Your task to perform on an android device: Open Google Maps Image 0: 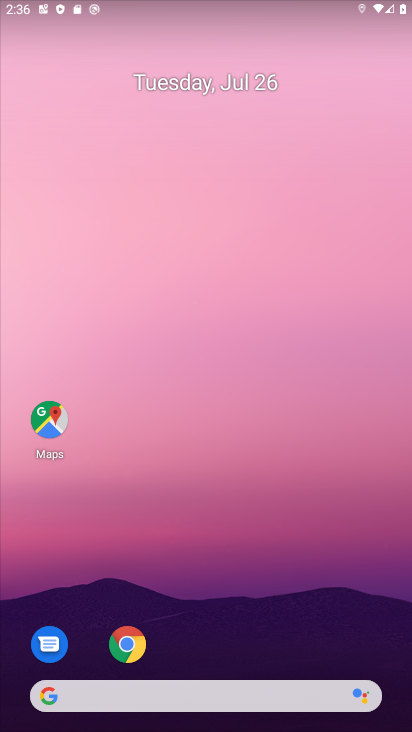
Step 0: press home button
Your task to perform on an android device: Open Google Maps Image 1: 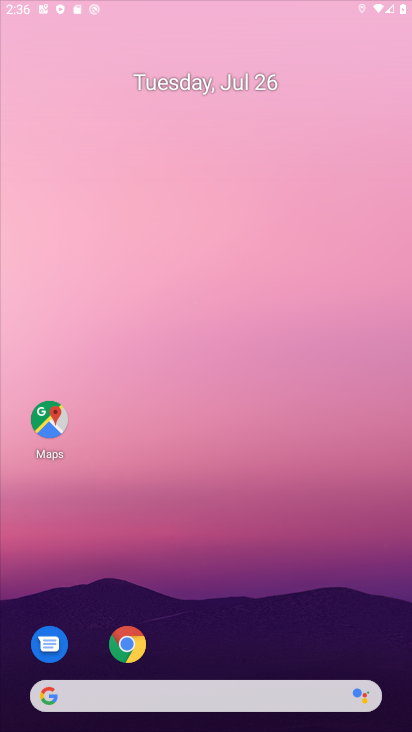
Step 1: drag from (259, 645) to (297, 83)
Your task to perform on an android device: Open Google Maps Image 2: 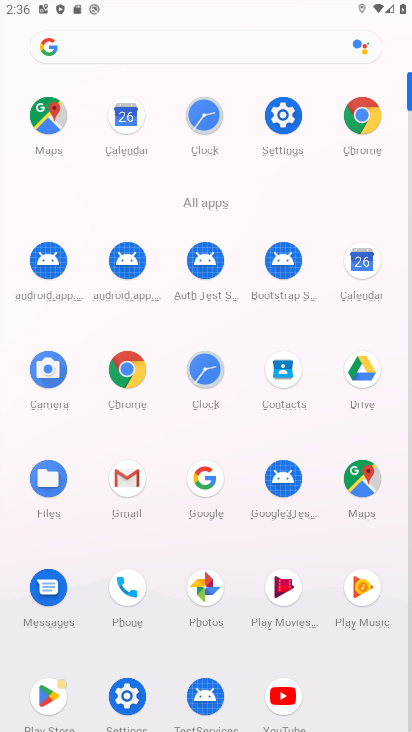
Step 2: click (51, 116)
Your task to perform on an android device: Open Google Maps Image 3: 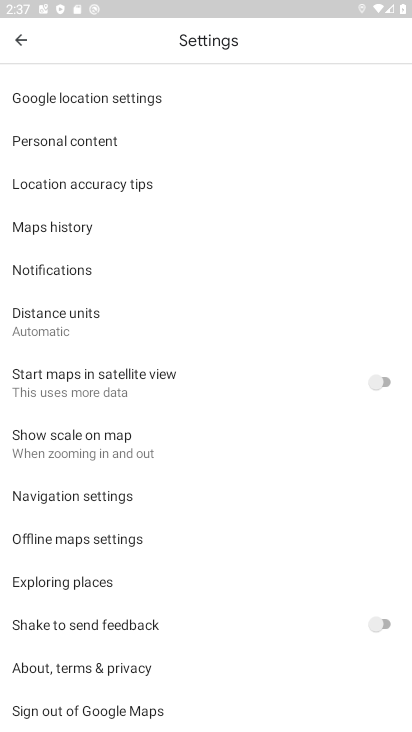
Step 3: click (18, 41)
Your task to perform on an android device: Open Google Maps Image 4: 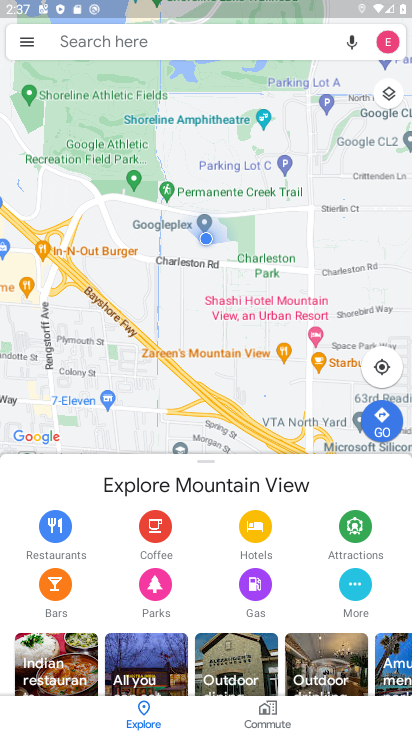
Step 4: task complete